Your task to perform on an android device: Clear the shopping cart on bestbuy. Add "logitech g pro" to the cart on bestbuy, then select checkout. Image 0: 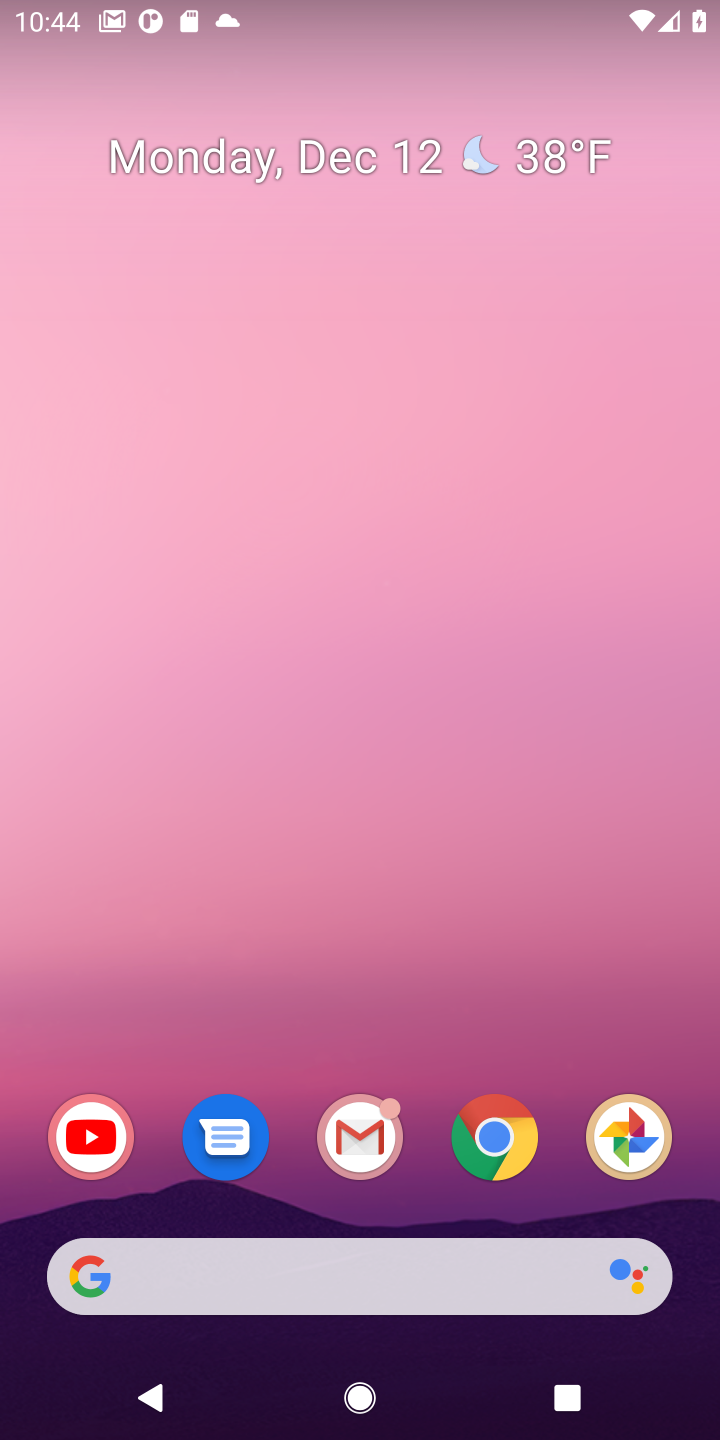
Step 0: click (529, 1128)
Your task to perform on an android device: Clear the shopping cart on bestbuy. Add "logitech g pro" to the cart on bestbuy, then select checkout. Image 1: 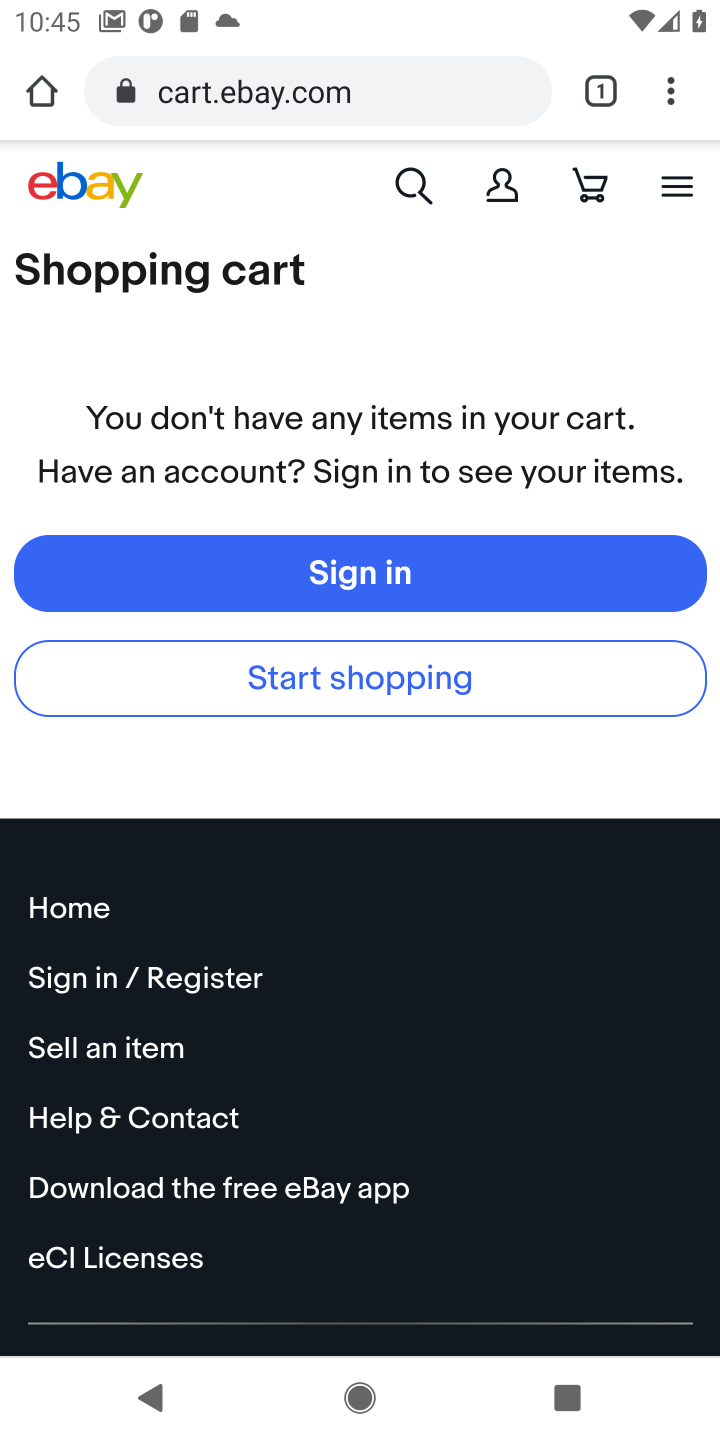
Step 1: click (433, 102)
Your task to perform on an android device: Clear the shopping cart on bestbuy. Add "logitech g pro" to the cart on bestbuy, then select checkout. Image 2: 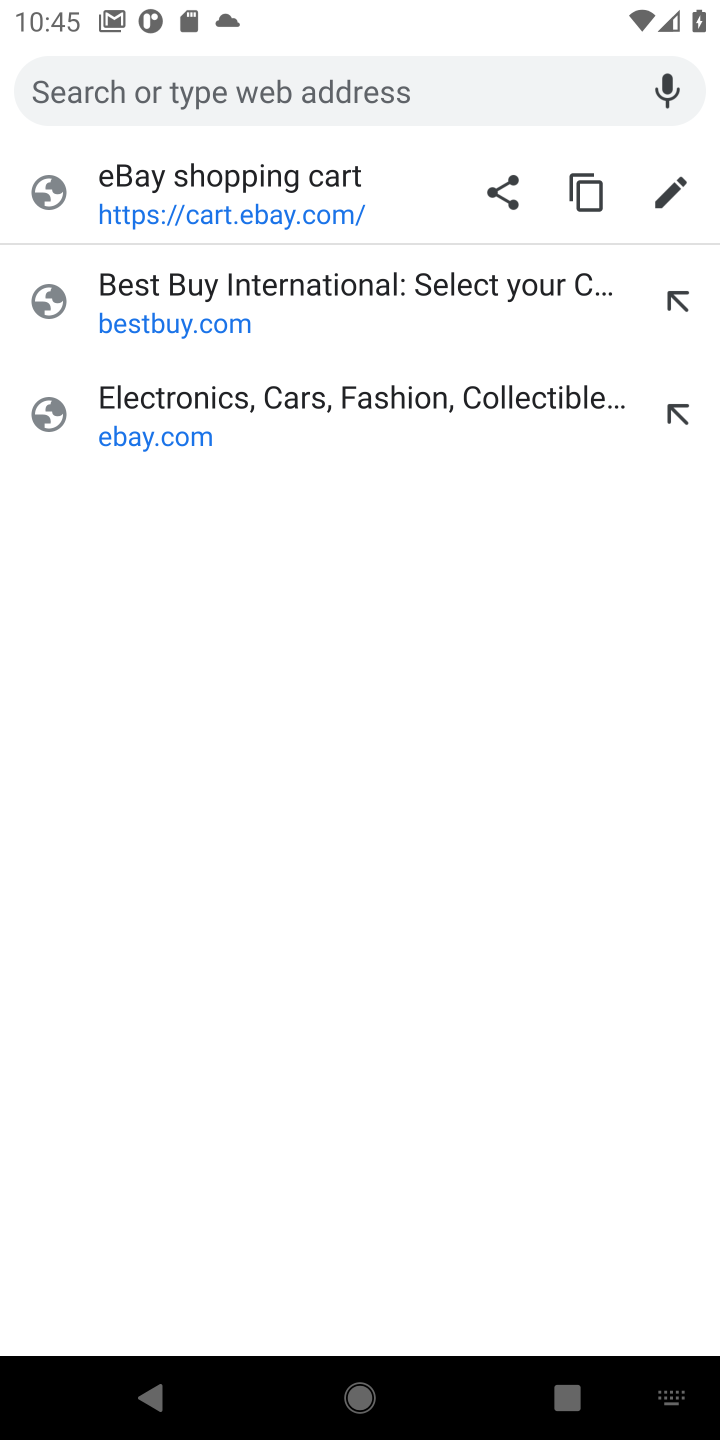
Step 2: click (428, 307)
Your task to perform on an android device: Clear the shopping cart on bestbuy. Add "logitech g pro" to the cart on bestbuy, then select checkout. Image 3: 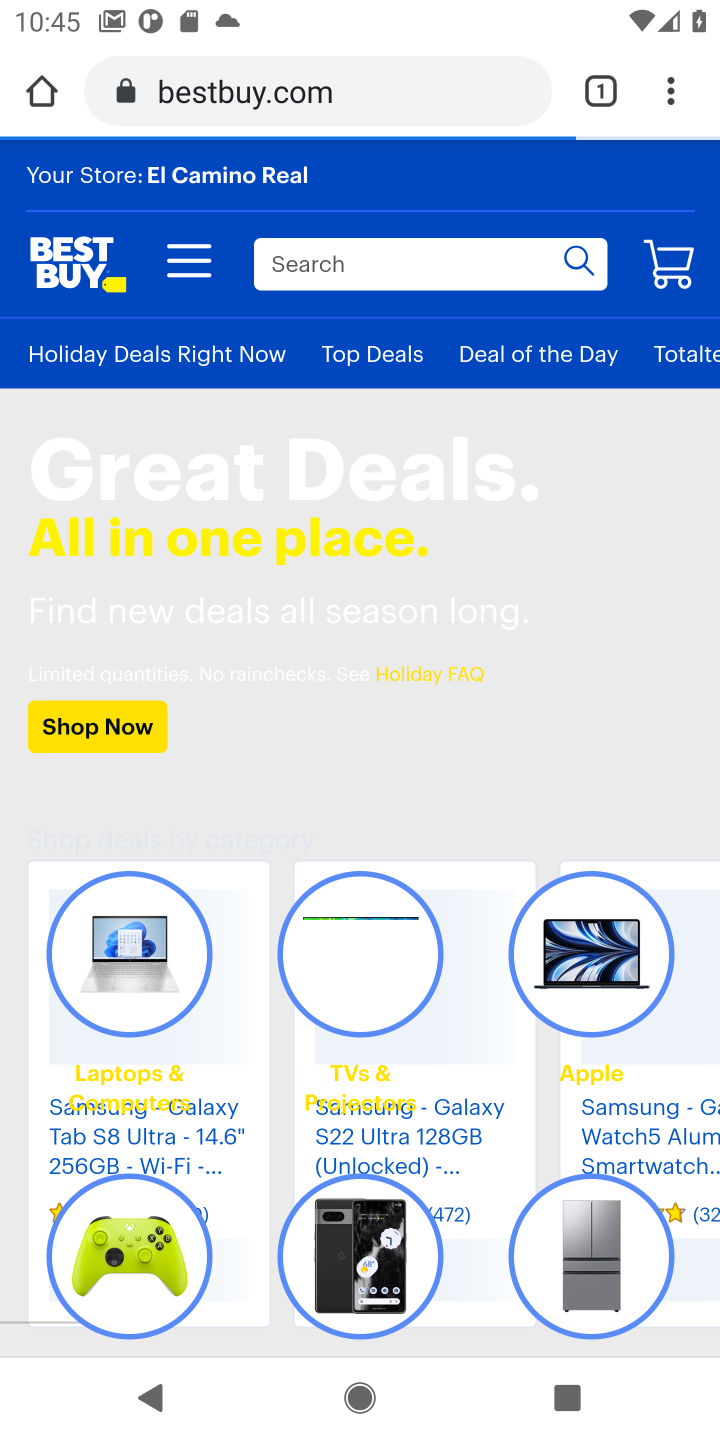
Step 3: click (322, 258)
Your task to perform on an android device: Clear the shopping cart on bestbuy. Add "logitech g pro" to the cart on bestbuy, then select checkout. Image 4: 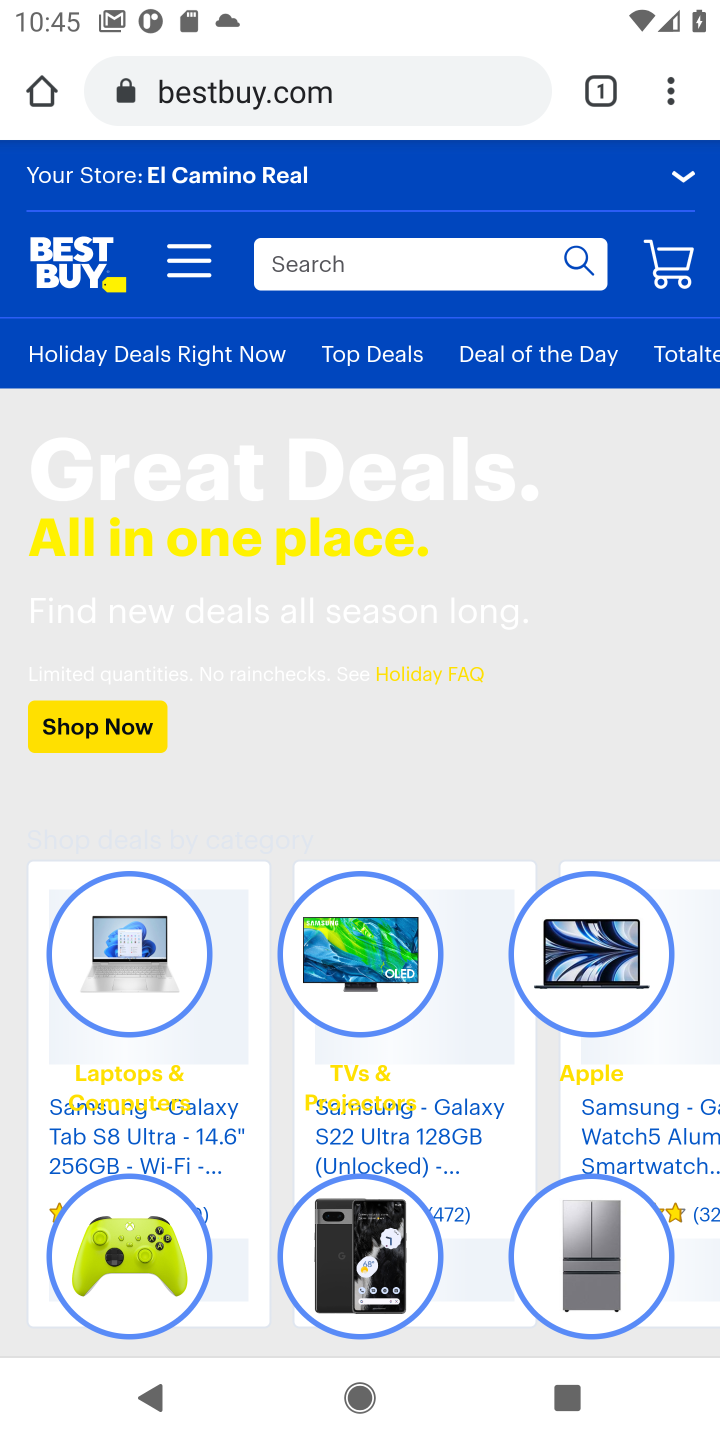
Step 4: type "logitech g prio"
Your task to perform on an android device: Clear the shopping cart on bestbuy. Add "logitech g pro" to the cart on bestbuy, then select checkout. Image 5: 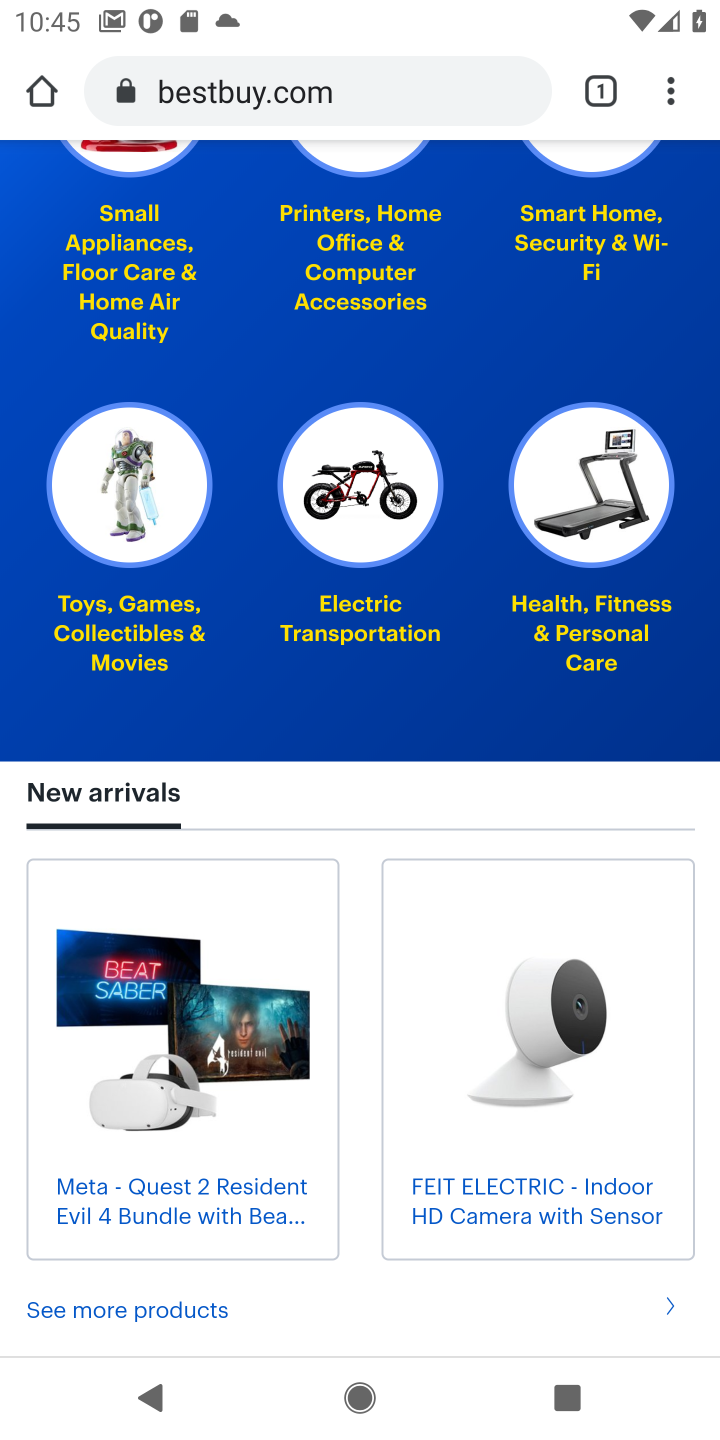
Step 5: drag from (432, 213) to (569, 1149)
Your task to perform on an android device: Clear the shopping cart on bestbuy. Add "logitech g pro" to the cart on bestbuy, then select checkout. Image 6: 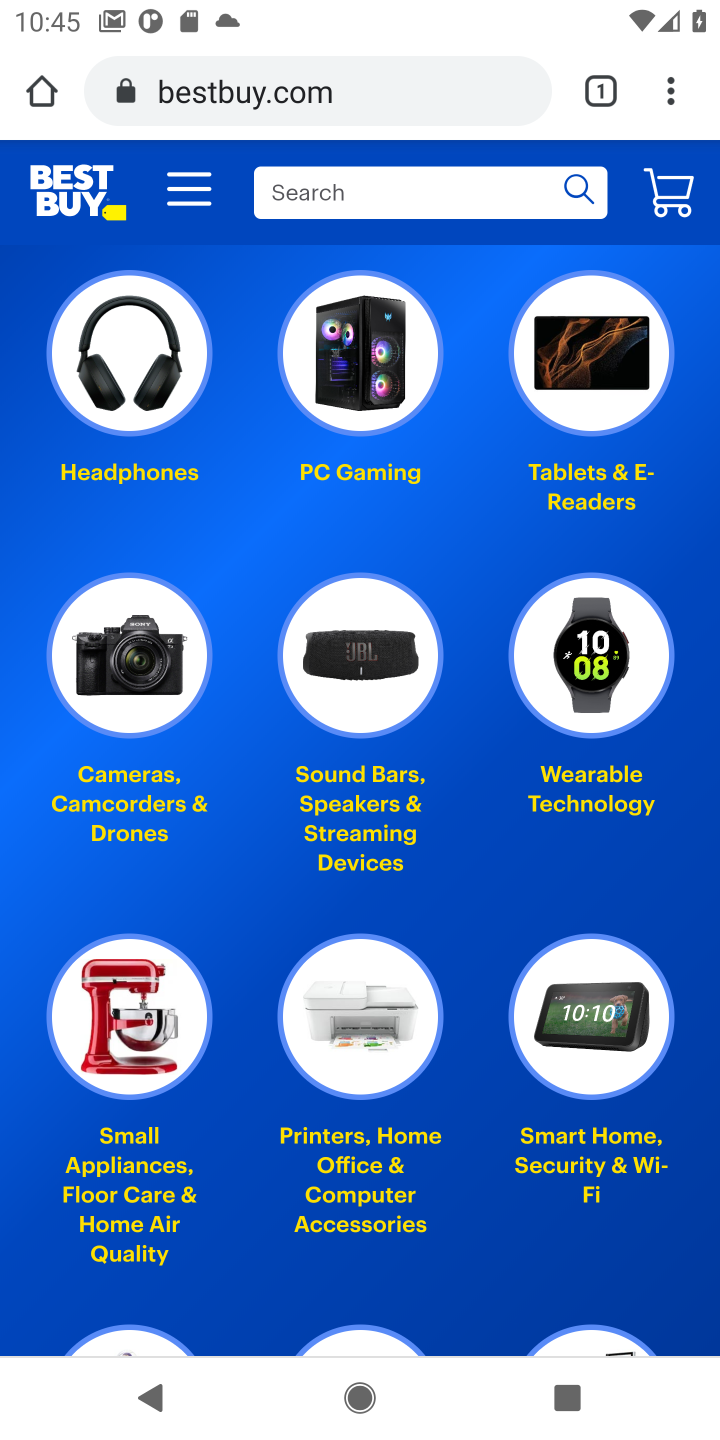
Step 6: click (392, 204)
Your task to perform on an android device: Clear the shopping cart on bestbuy. Add "logitech g pro" to the cart on bestbuy, then select checkout. Image 7: 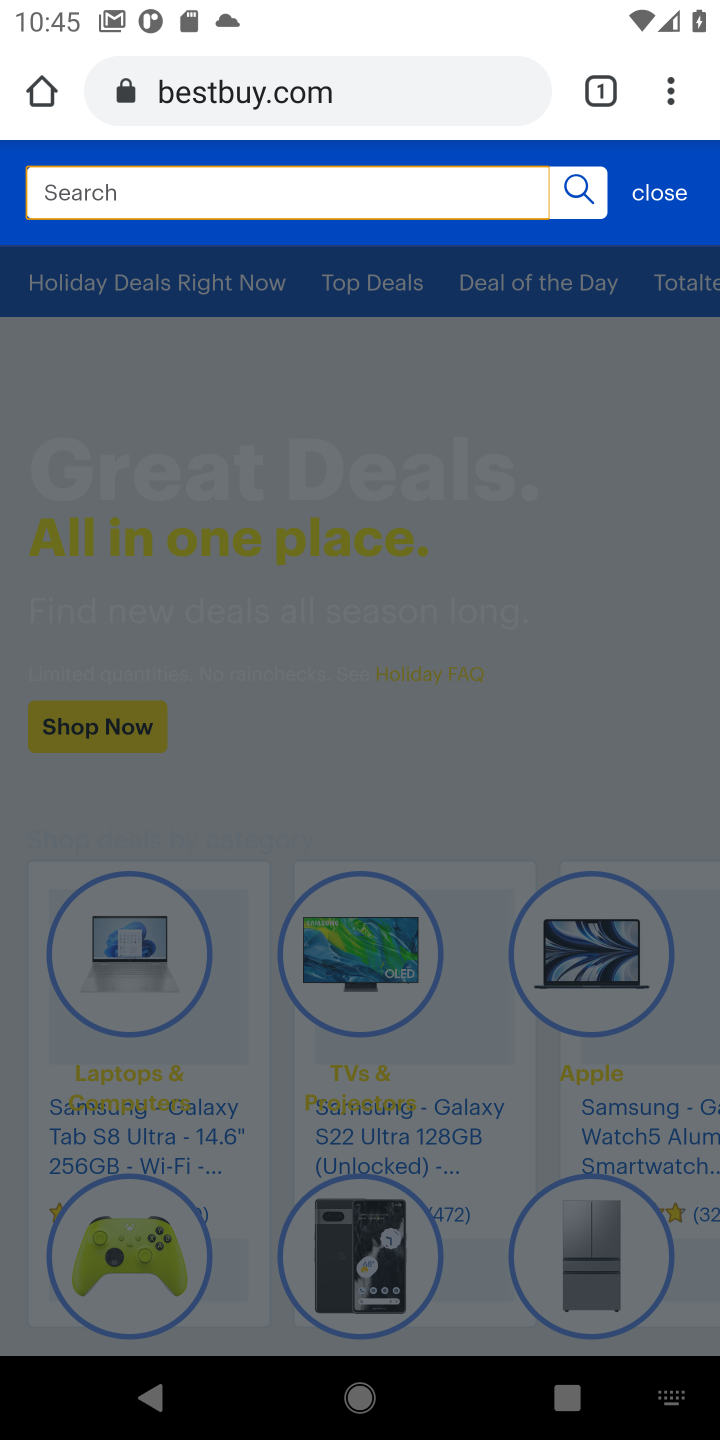
Step 7: type "logitech gpro"
Your task to perform on an android device: Clear the shopping cart on bestbuy. Add "logitech g pro" to the cart on bestbuy, then select checkout. Image 8: 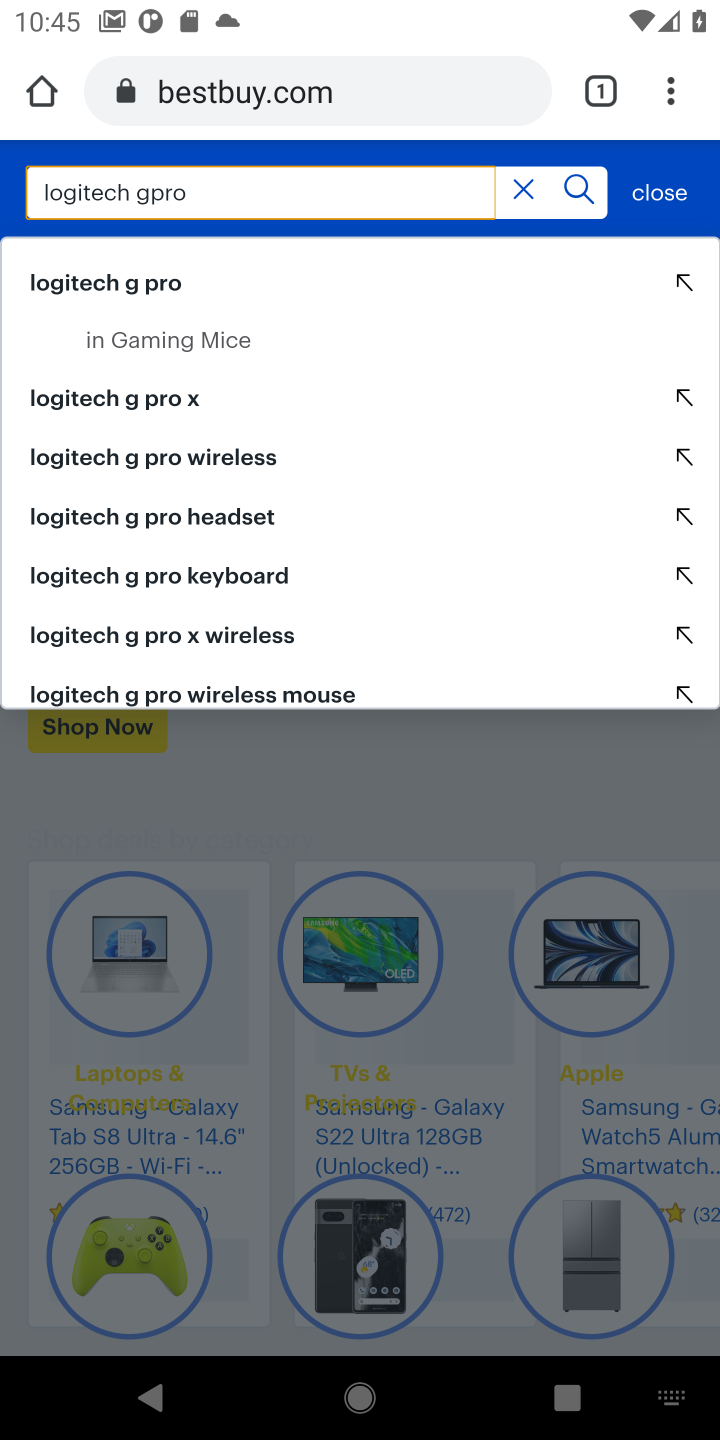
Step 8: click (302, 284)
Your task to perform on an android device: Clear the shopping cart on bestbuy. Add "logitech g pro" to the cart on bestbuy, then select checkout. Image 9: 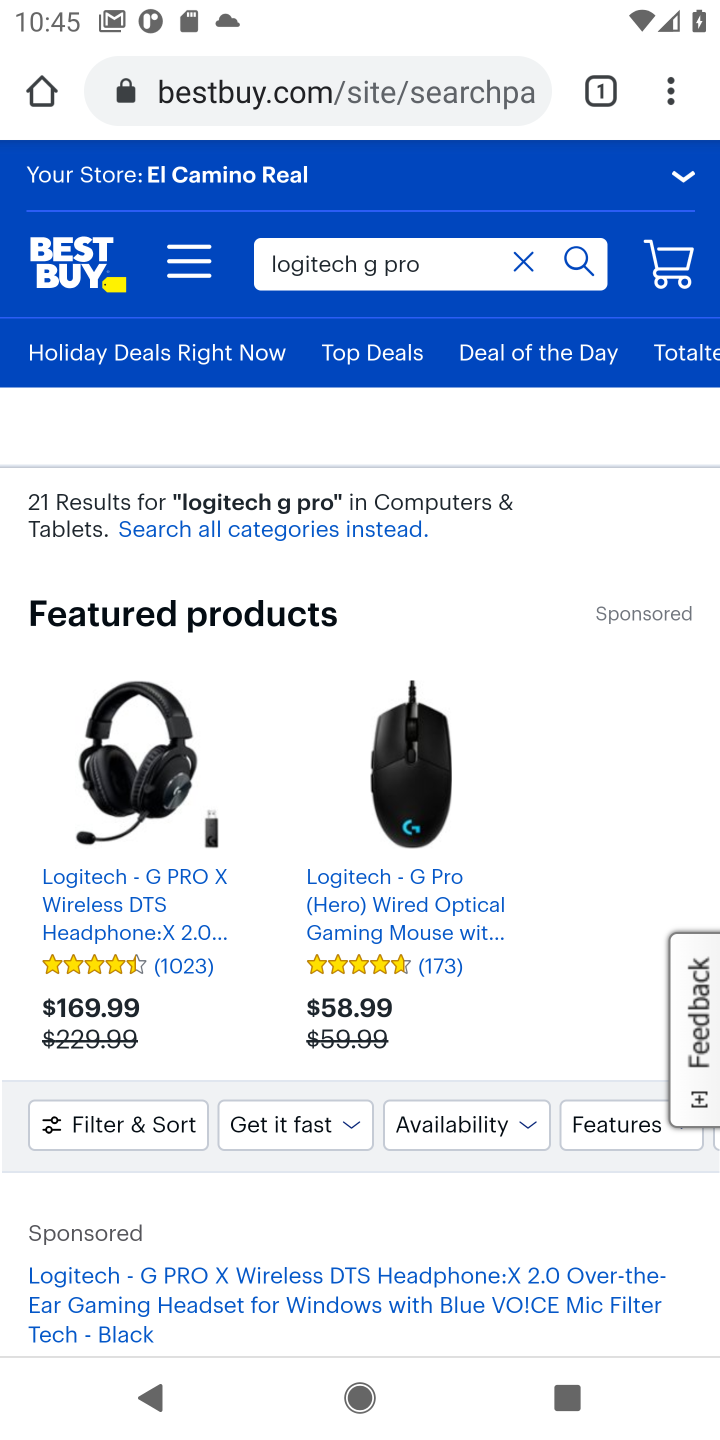
Step 9: click (176, 887)
Your task to perform on an android device: Clear the shopping cart on bestbuy. Add "logitech g pro" to the cart on bestbuy, then select checkout. Image 10: 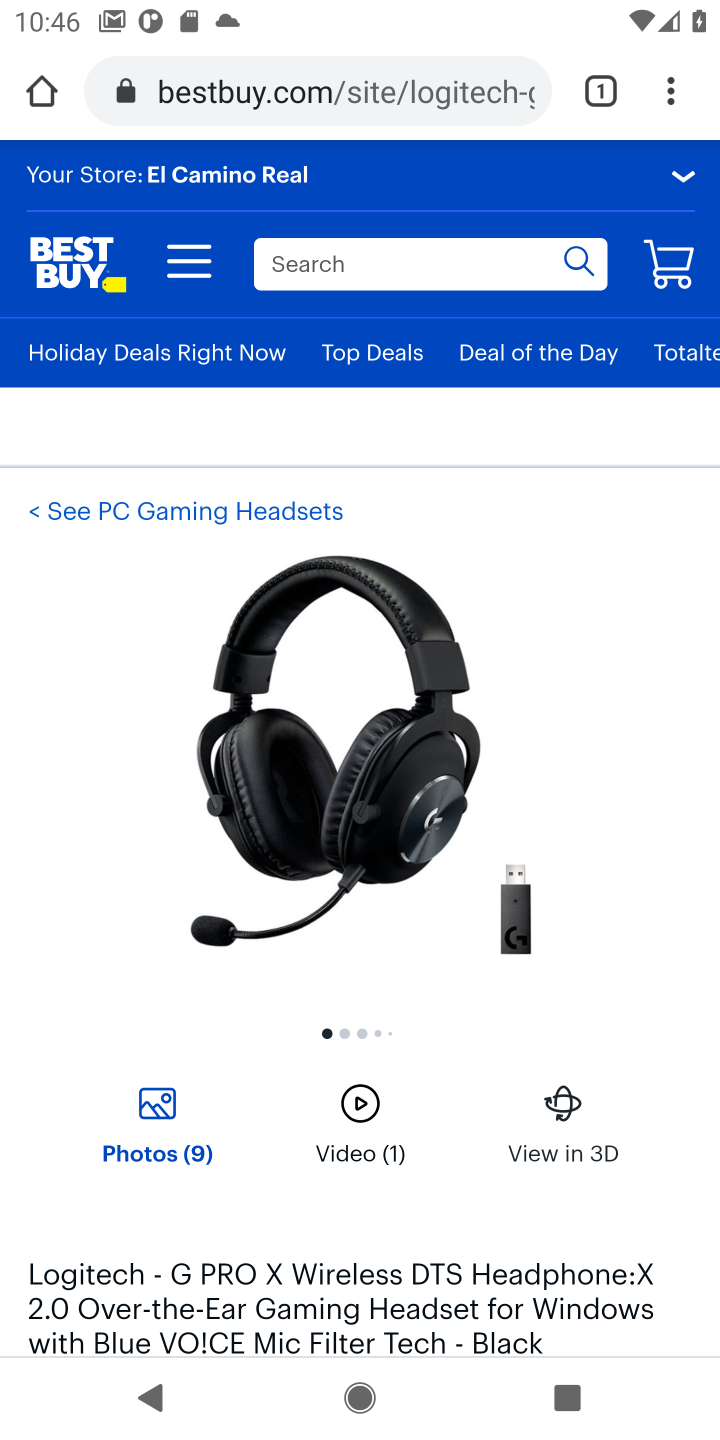
Step 10: drag from (268, 1191) to (265, 746)
Your task to perform on an android device: Clear the shopping cart on bestbuy. Add "logitech g pro" to the cart on bestbuy, then select checkout. Image 11: 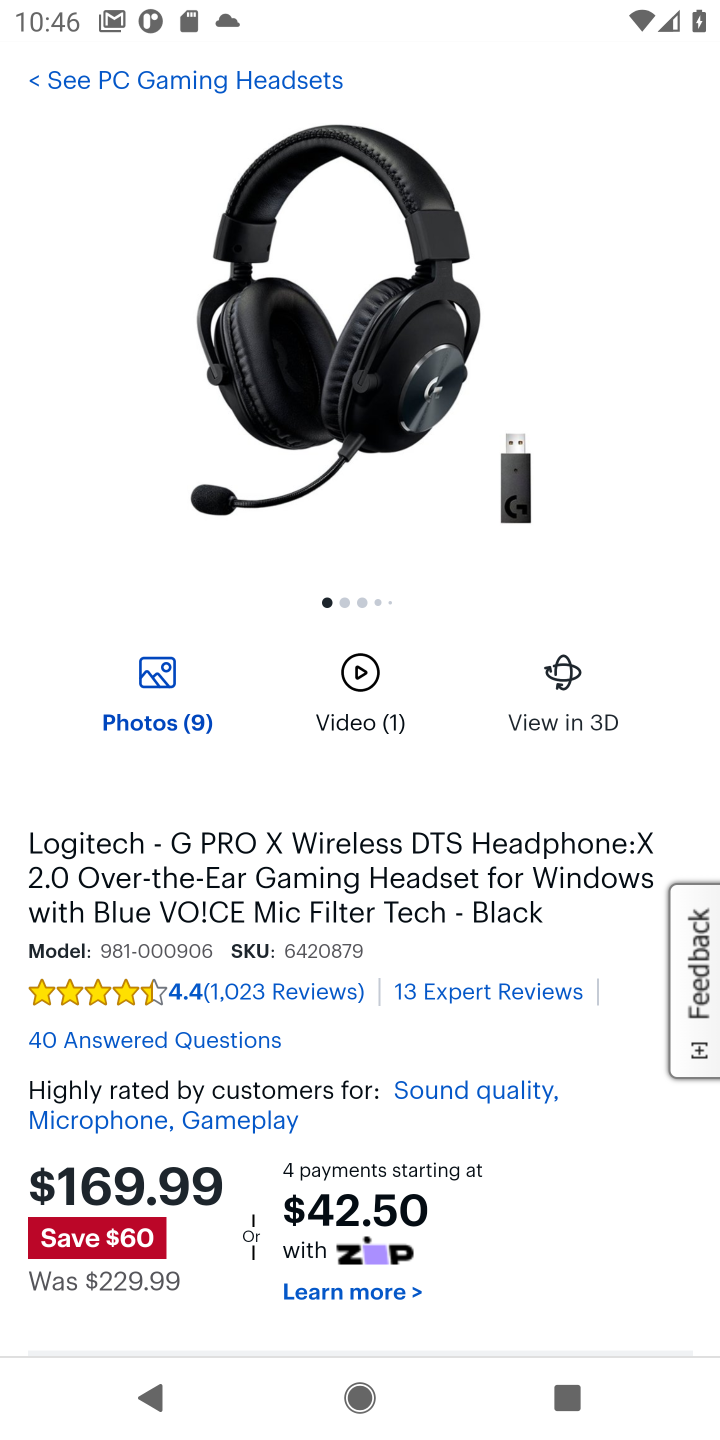
Step 11: drag from (544, 1225) to (437, 640)
Your task to perform on an android device: Clear the shopping cart on bestbuy. Add "logitech g pro" to the cart on bestbuy, then select checkout. Image 12: 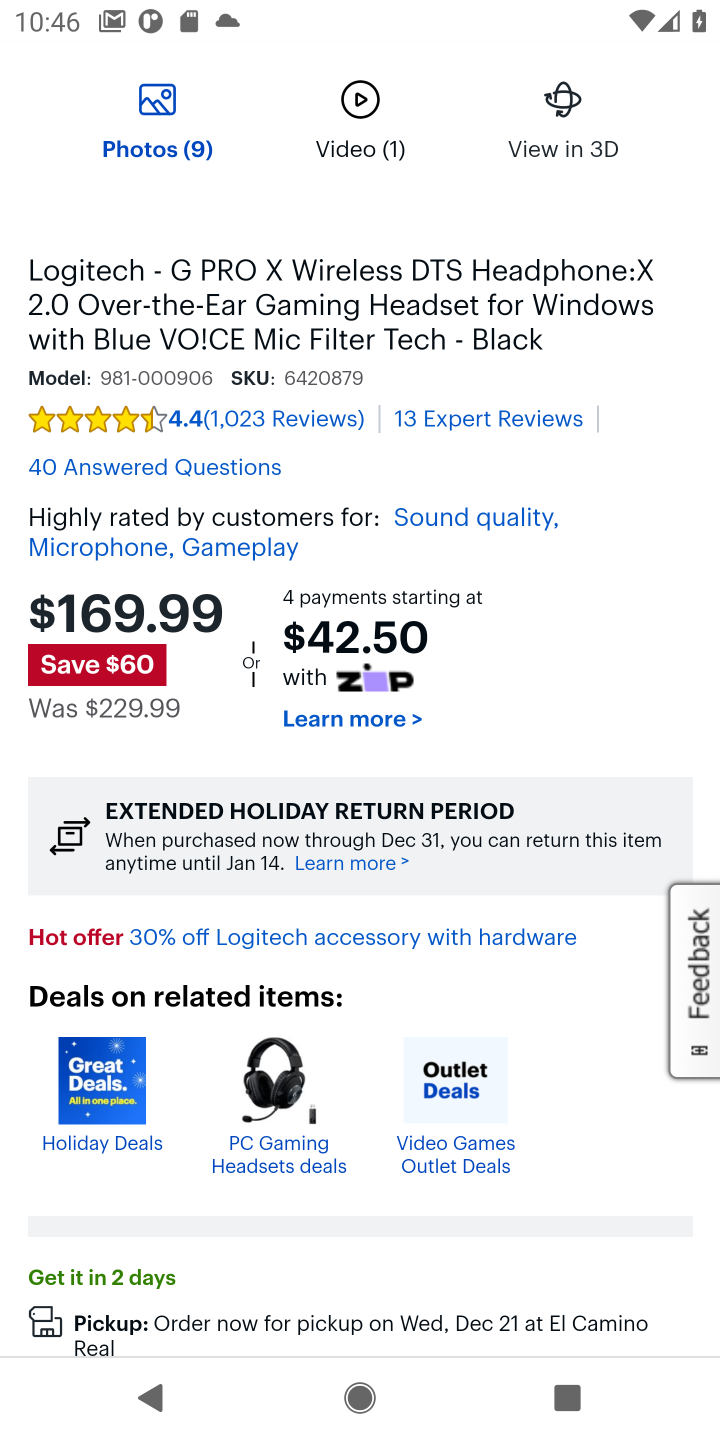
Step 12: drag from (514, 1252) to (472, 358)
Your task to perform on an android device: Clear the shopping cart on bestbuy. Add "logitech g pro" to the cart on bestbuy, then select checkout. Image 13: 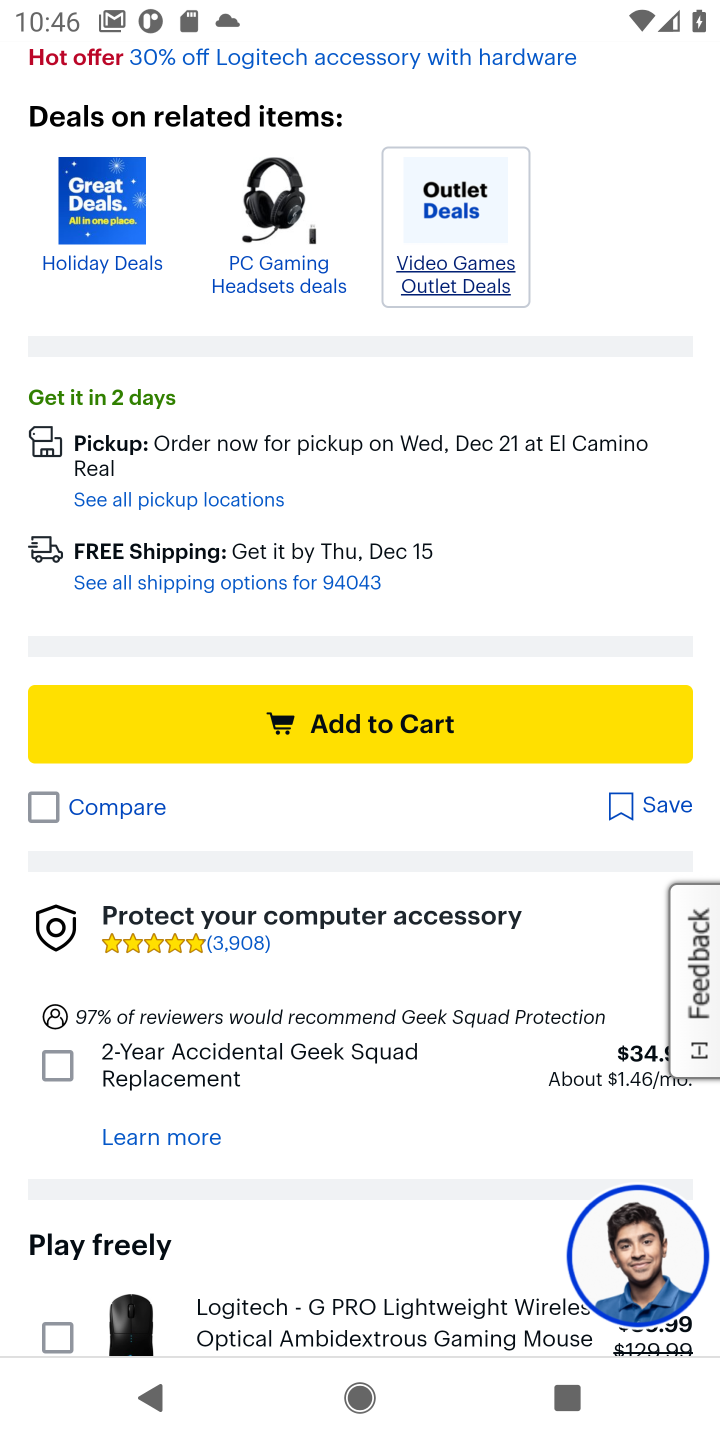
Step 13: click (457, 713)
Your task to perform on an android device: Clear the shopping cart on bestbuy. Add "logitech g pro" to the cart on bestbuy, then select checkout. Image 14: 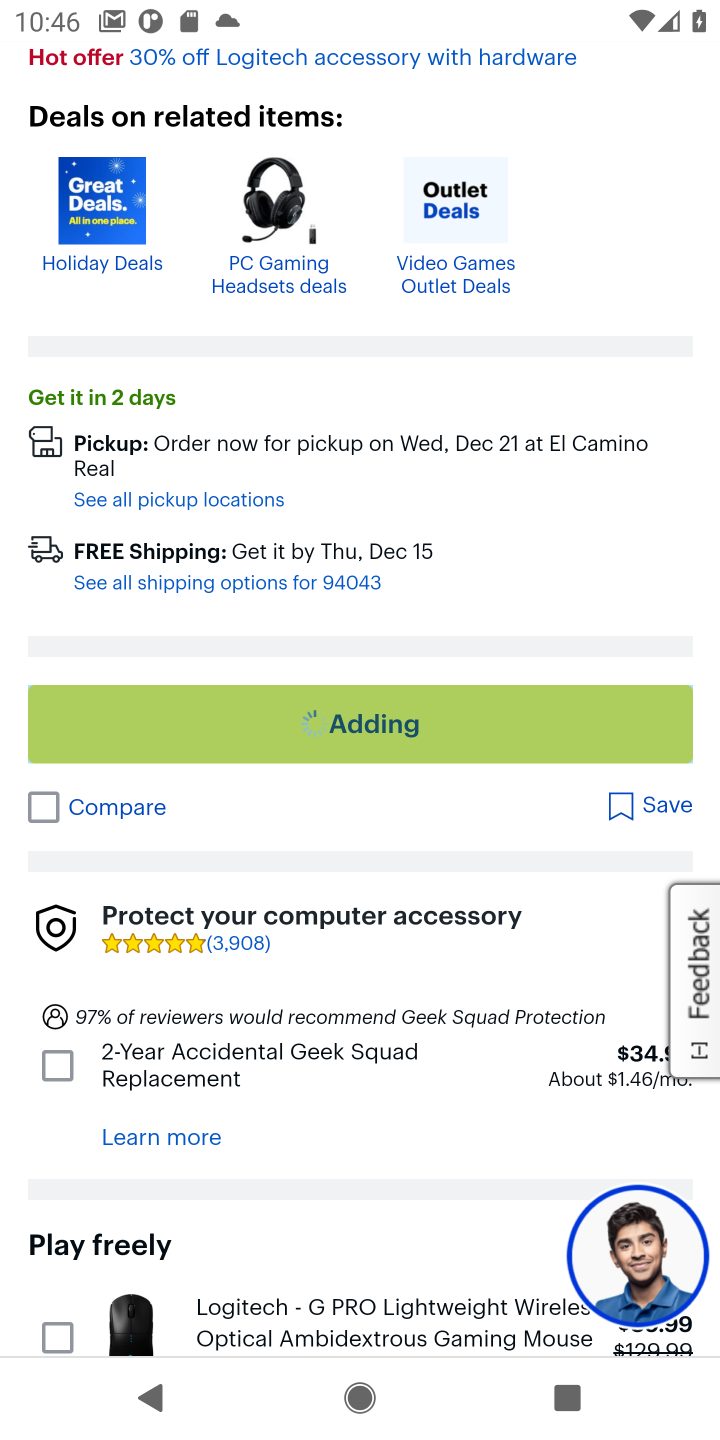
Step 14: task complete